Your task to perform on an android device: Open Youtube and go to the subscriptions tab Image 0: 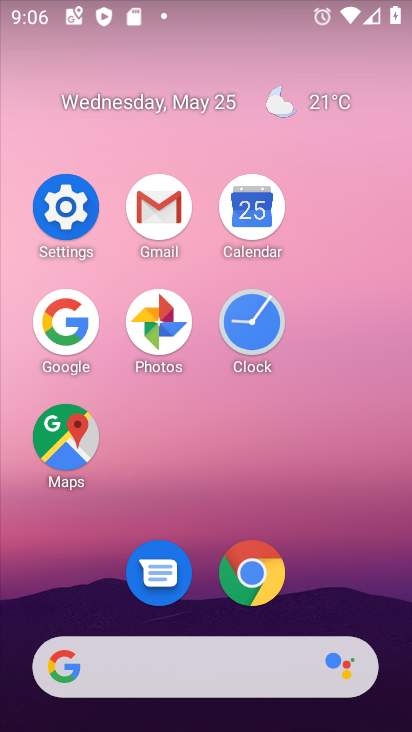
Step 0: drag from (322, 614) to (375, 224)
Your task to perform on an android device: Open Youtube and go to the subscriptions tab Image 1: 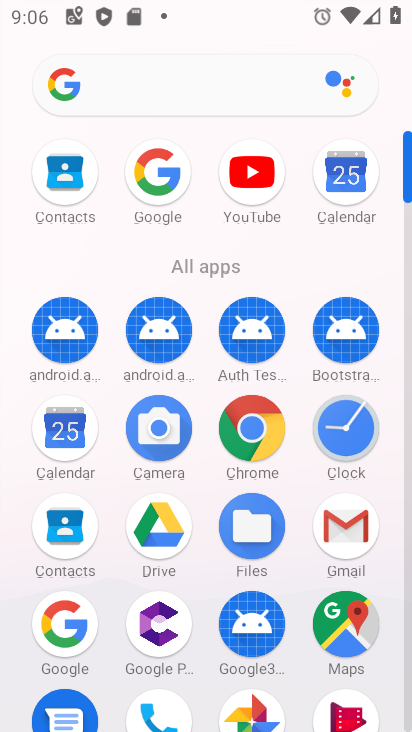
Step 1: drag from (255, 183) to (173, 406)
Your task to perform on an android device: Open Youtube and go to the subscriptions tab Image 2: 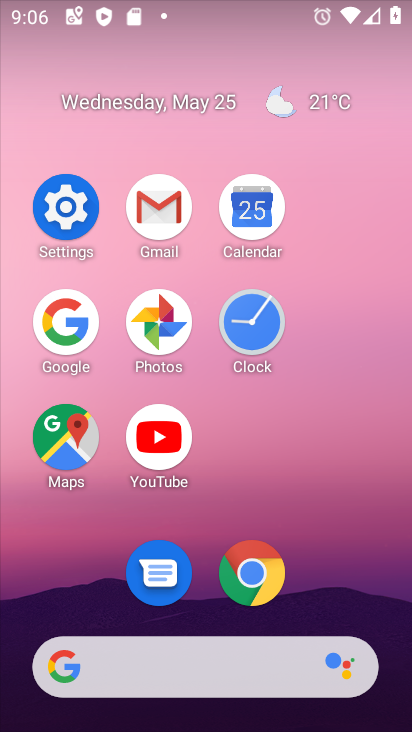
Step 2: click (170, 434)
Your task to perform on an android device: Open Youtube and go to the subscriptions tab Image 3: 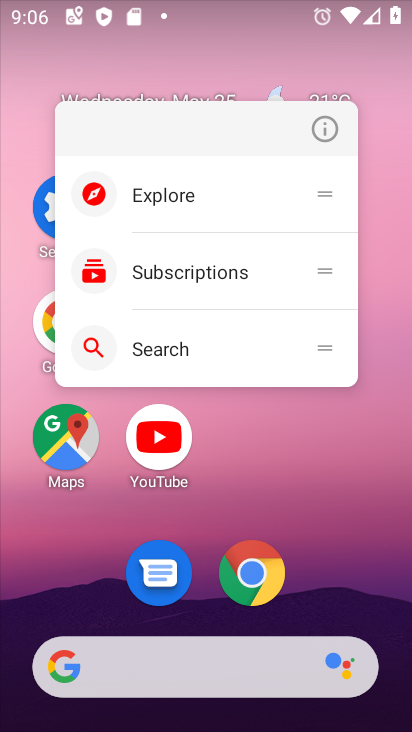
Step 3: click (156, 425)
Your task to perform on an android device: Open Youtube and go to the subscriptions tab Image 4: 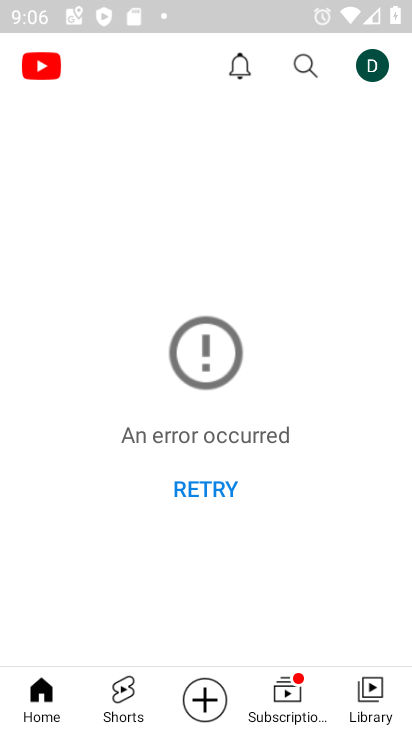
Step 4: click (279, 688)
Your task to perform on an android device: Open Youtube and go to the subscriptions tab Image 5: 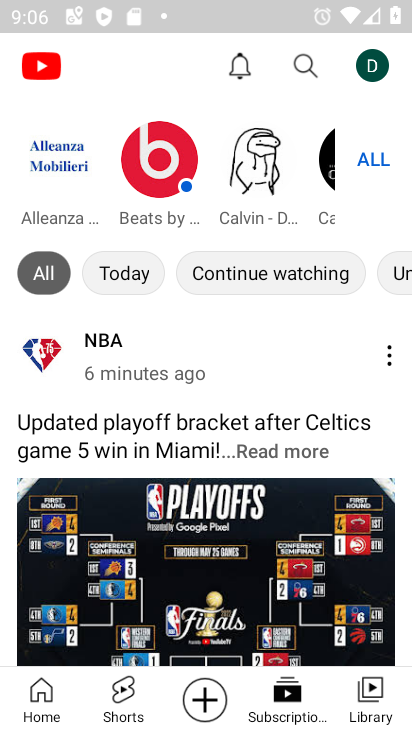
Step 5: task complete